Your task to perform on an android device: Go to sound settings Image 0: 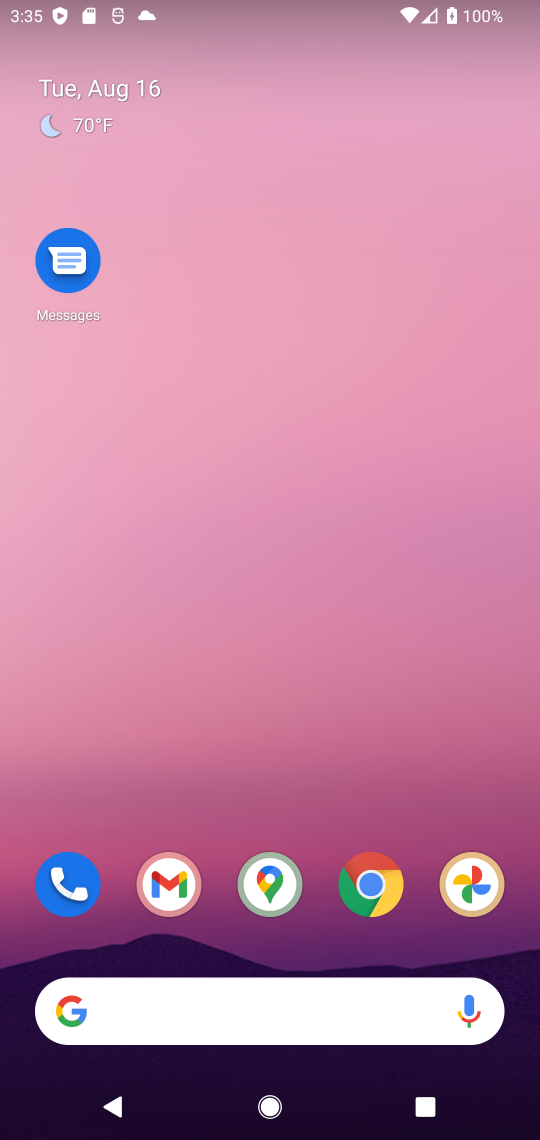
Step 0: drag from (41, 1099) to (435, 408)
Your task to perform on an android device: Go to sound settings Image 1: 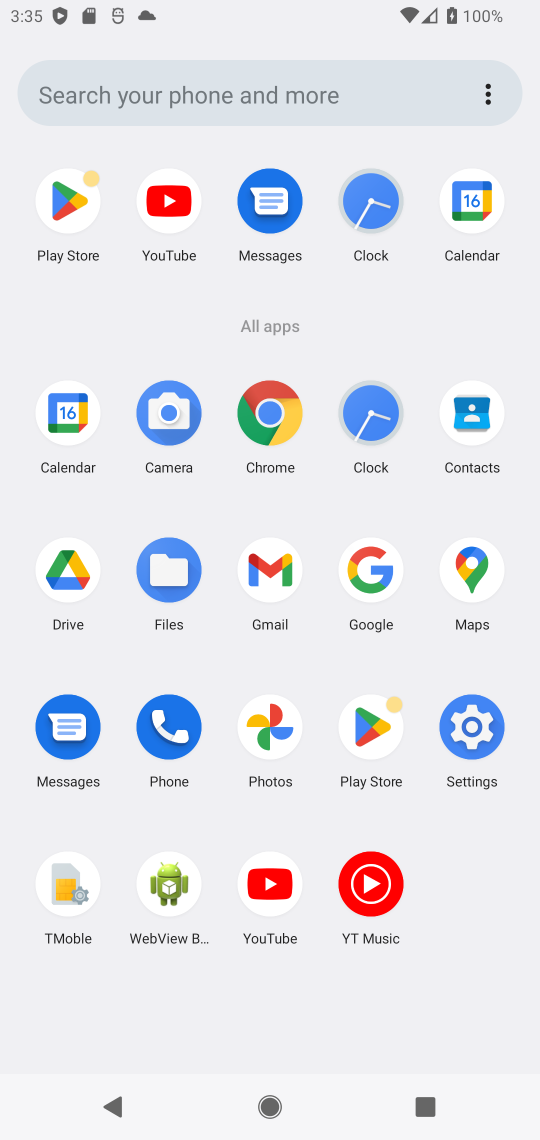
Step 1: click (471, 716)
Your task to perform on an android device: Go to sound settings Image 2: 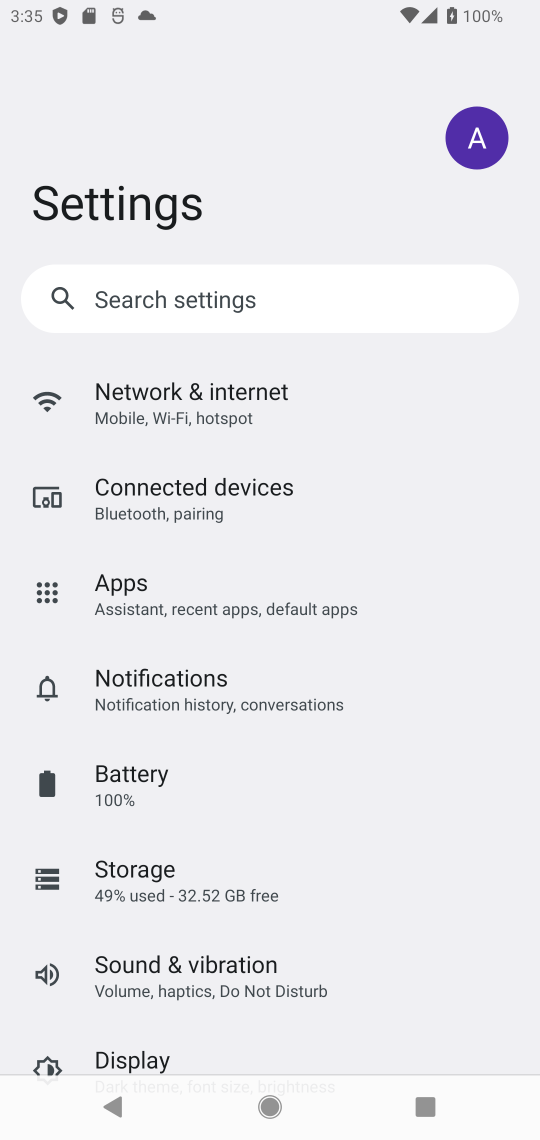
Step 2: click (170, 978)
Your task to perform on an android device: Go to sound settings Image 3: 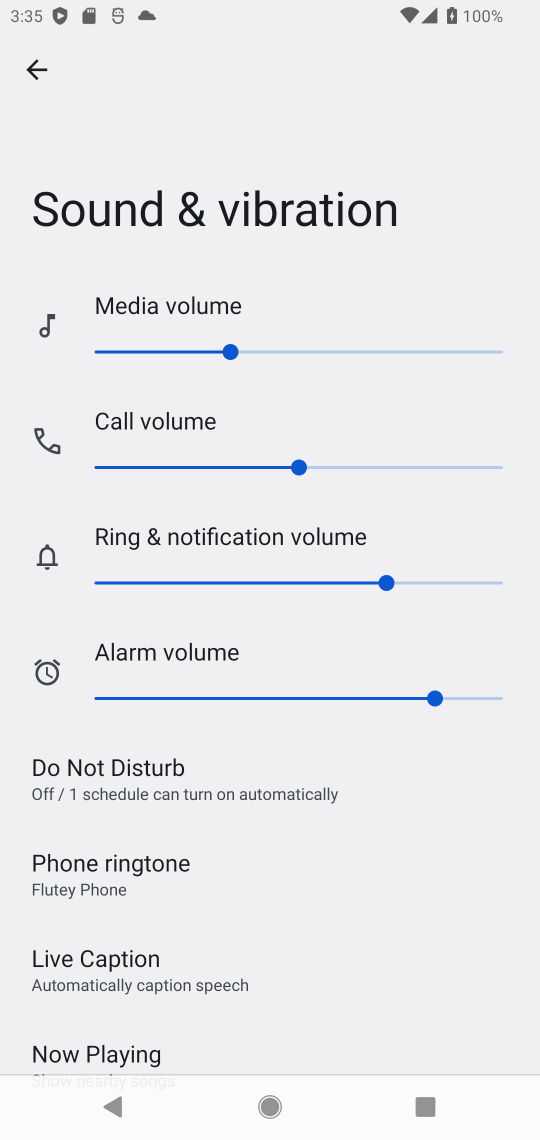
Step 3: task complete